Your task to perform on an android device: Go to settings Image 0: 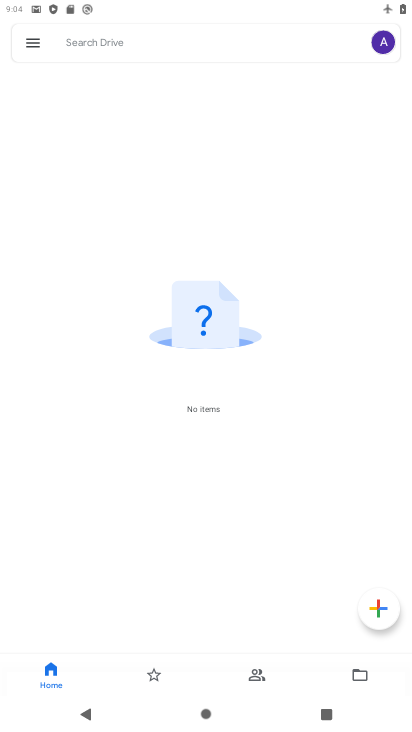
Step 0: press home button
Your task to perform on an android device: Go to settings Image 1: 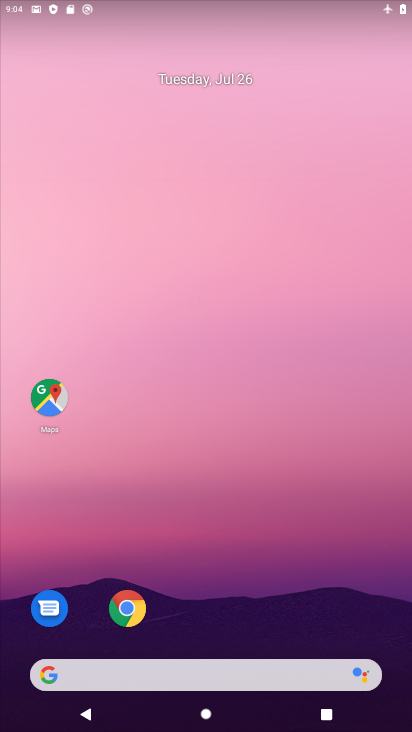
Step 1: drag from (202, 611) to (260, 145)
Your task to perform on an android device: Go to settings Image 2: 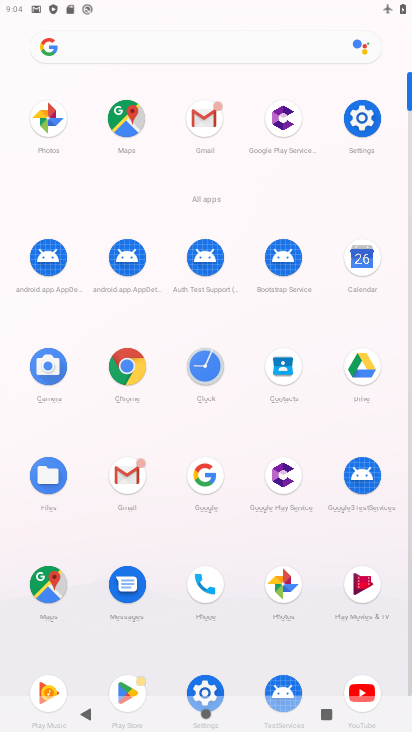
Step 2: click (378, 107)
Your task to perform on an android device: Go to settings Image 3: 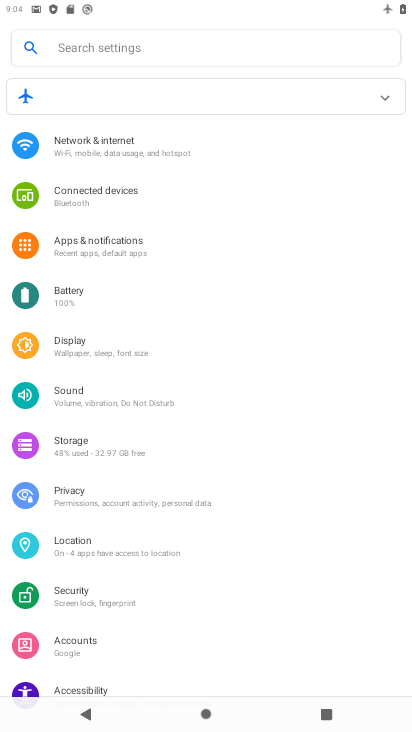
Step 3: task complete